Your task to perform on an android device: visit the assistant section in the google photos Image 0: 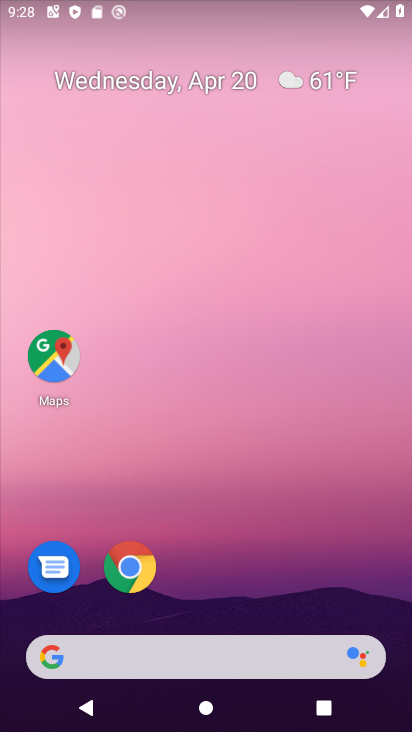
Step 0: drag from (293, 448) to (385, 5)
Your task to perform on an android device: visit the assistant section in the google photos Image 1: 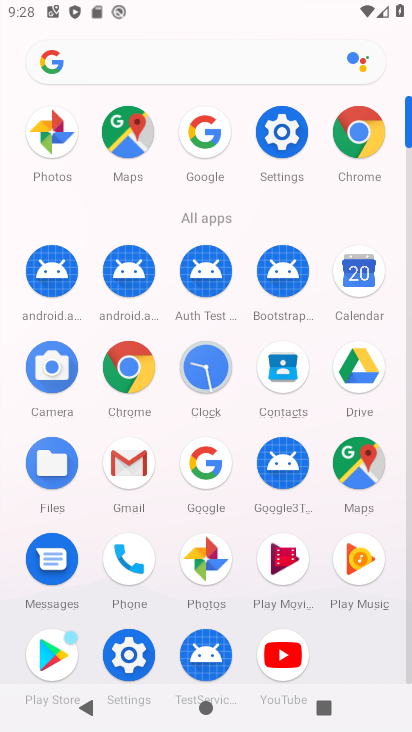
Step 1: click (202, 562)
Your task to perform on an android device: visit the assistant section in the google photos Image 2: 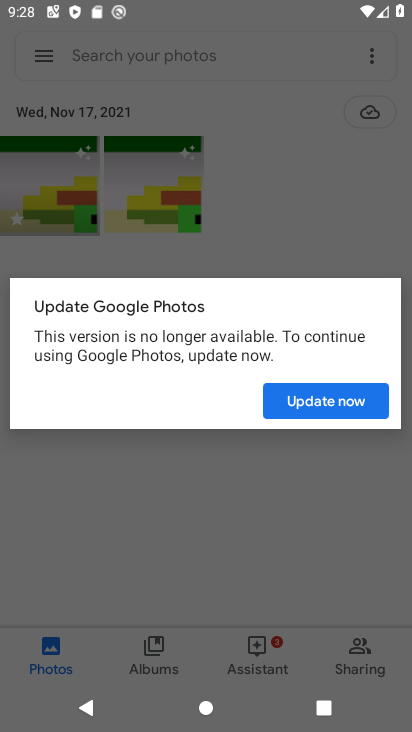
Step 2: click (305, 406)
Your task to perform on an android device: visit the assistant section in the google photos Image 3: 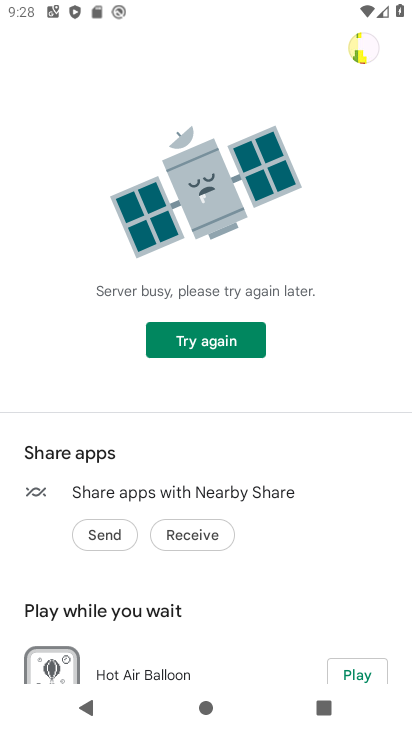
Step 3: click (208, 340)
Your task to perform on an android device: visit the assistant section in the google photos Image 4: 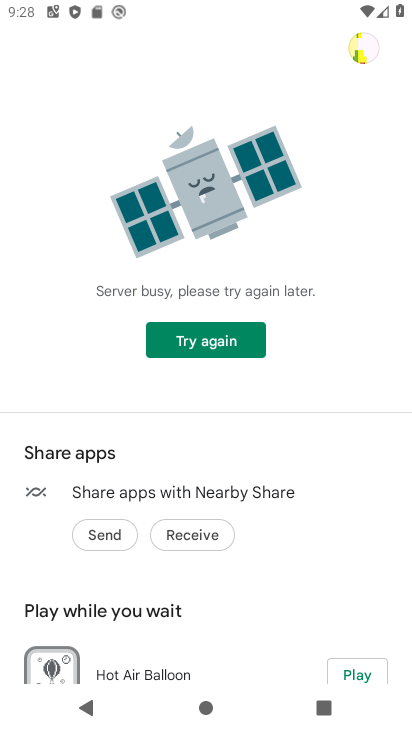
Step 4: press back button
Your task to perform on an android device: visit the assistant section in the google photos Image 5: 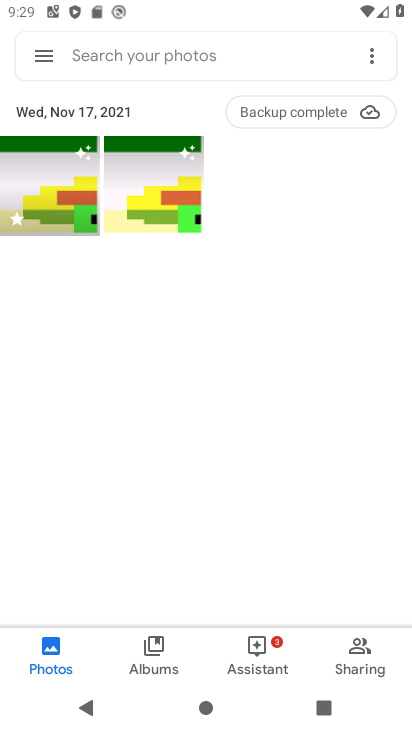
Step 5: click (252, 652)
Your task to perform on an android device: visit the assistant section in the google photos Image 6: 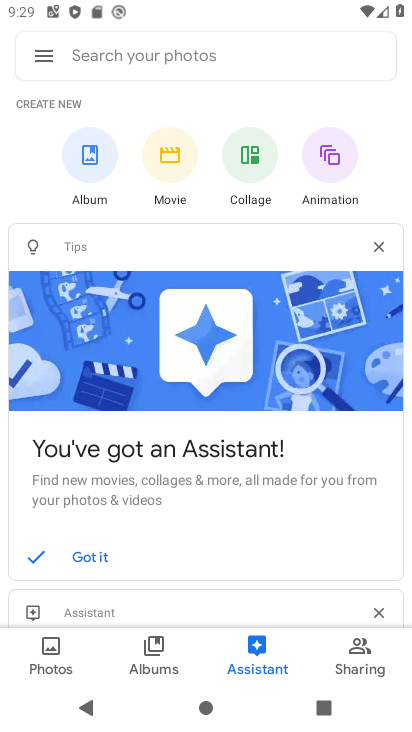
Step 6: task complete